Your task to perform on an android device: remove spam from my inbox in the gmail app Image 0: 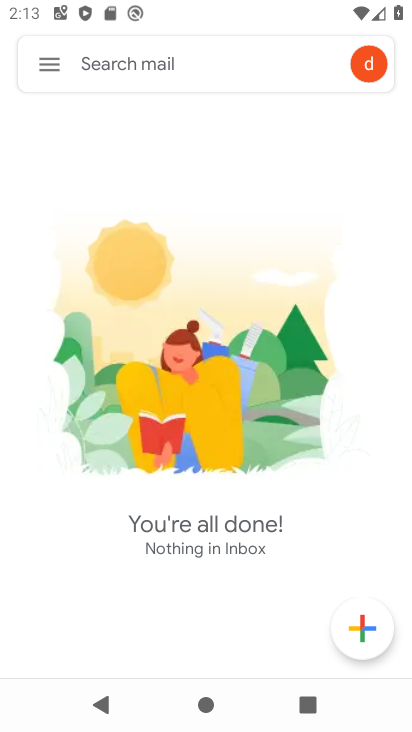
Step 0: click (52, 78)
Your task to perform on an android device: remove spam from my inbox in the gmail app Image 1: 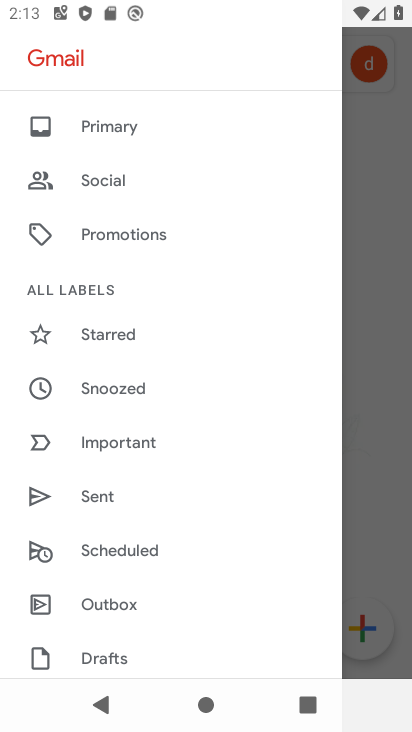
Step 1: drag from (137, 492) to (136, 320)
Your task to perform on an android device: remove spam from my inbox in the gmail app Image 2: 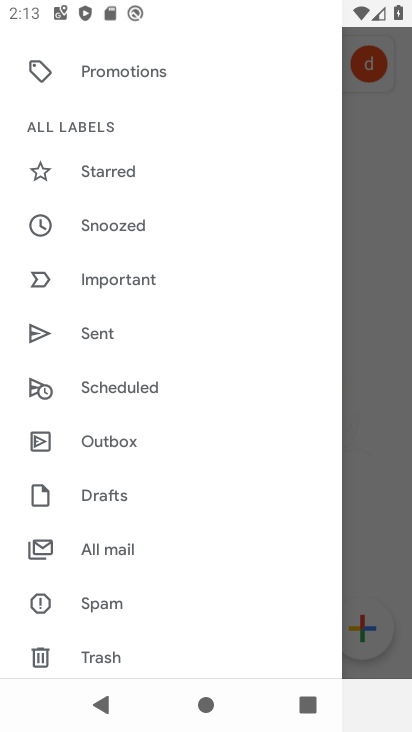
Step 2: click (126, 595)
Your task to perform on an android device: remove spam from my inbox in the gmail app Image 3: 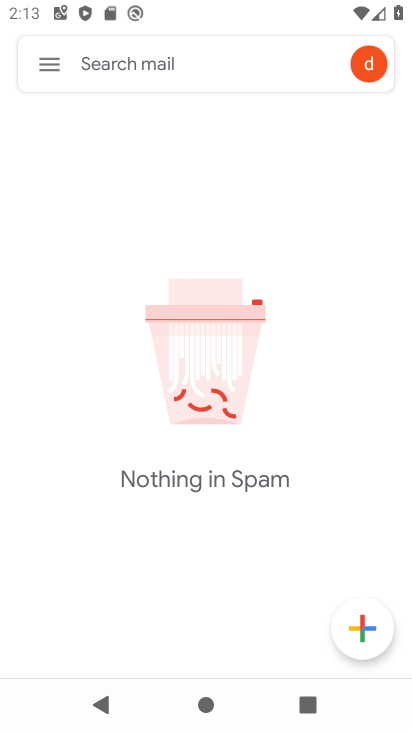
Step 3: task complete